Your task to perform on an android device: toggle notifications settings in the gmail app Image 0: 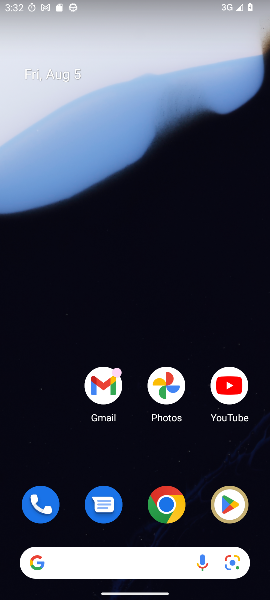
Step 0: click (102, 395)
Your task to perform on an android device: toggle notifications settings in the gmail app Image 1: 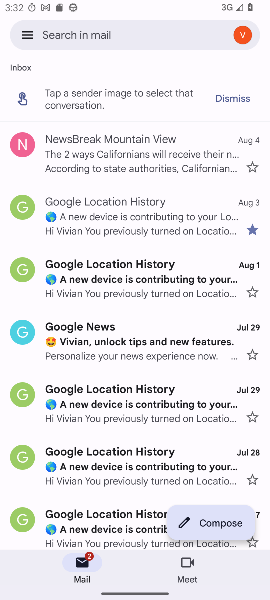
Step 1: click (20, 35)
Your task to perform on an android device: toggle notifications settings in the gmail app Image 2: 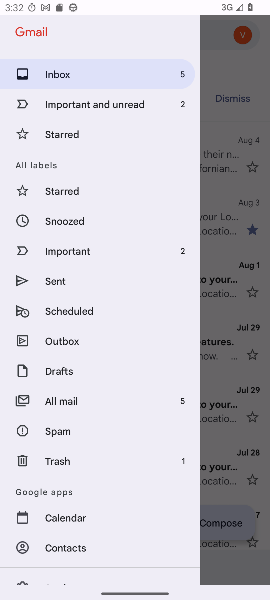
Step 2: drag from (84, 544) to (132, 200)
Your task to perform on an android device: toggle notifications settings in the gmail app Image 3: 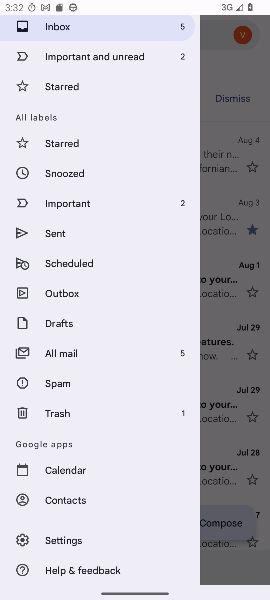
Step 3: click (57, 543)
Your task to perform on an android device: toggle notifications settings in the gmail app Image 4: 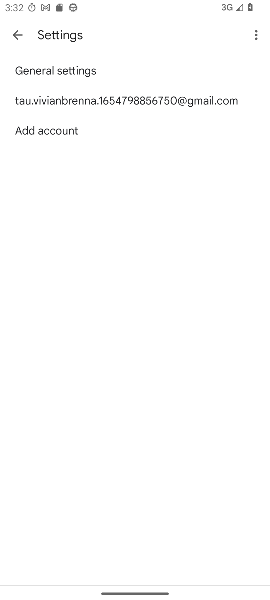
Step 4: click (126, 94)
Your task to perform on an android device: toggle notifications settings in the gmail app Image 5: 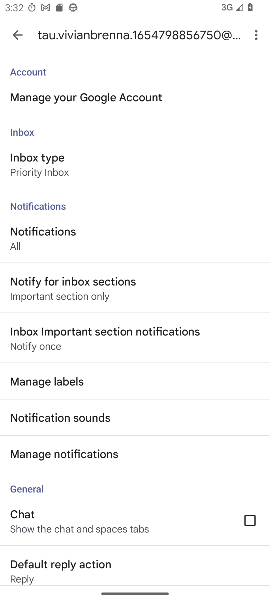
Step 5: click (82, 458)
Your task to perform on an android device: toggle notifications settings in the gmail app Image 6: 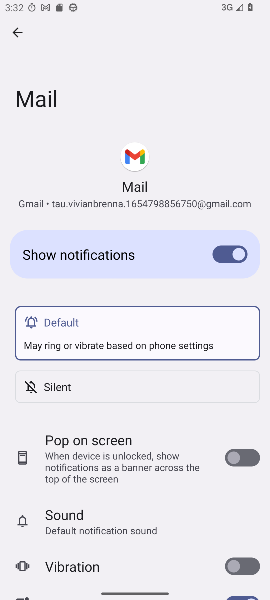
Step 6: click (223, 262)
Your task to perform on an android device: toggle notifications settings in the gmail app Image 7: 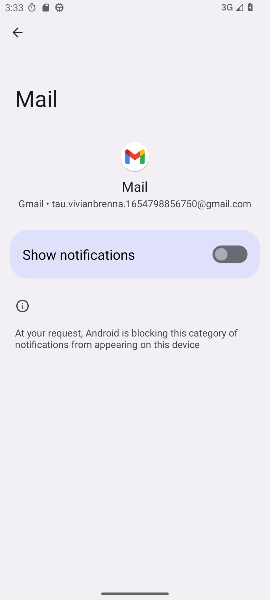
Step 7: task complete